Your task to perform on an android device: Search for good Thai restaurants Image 0: 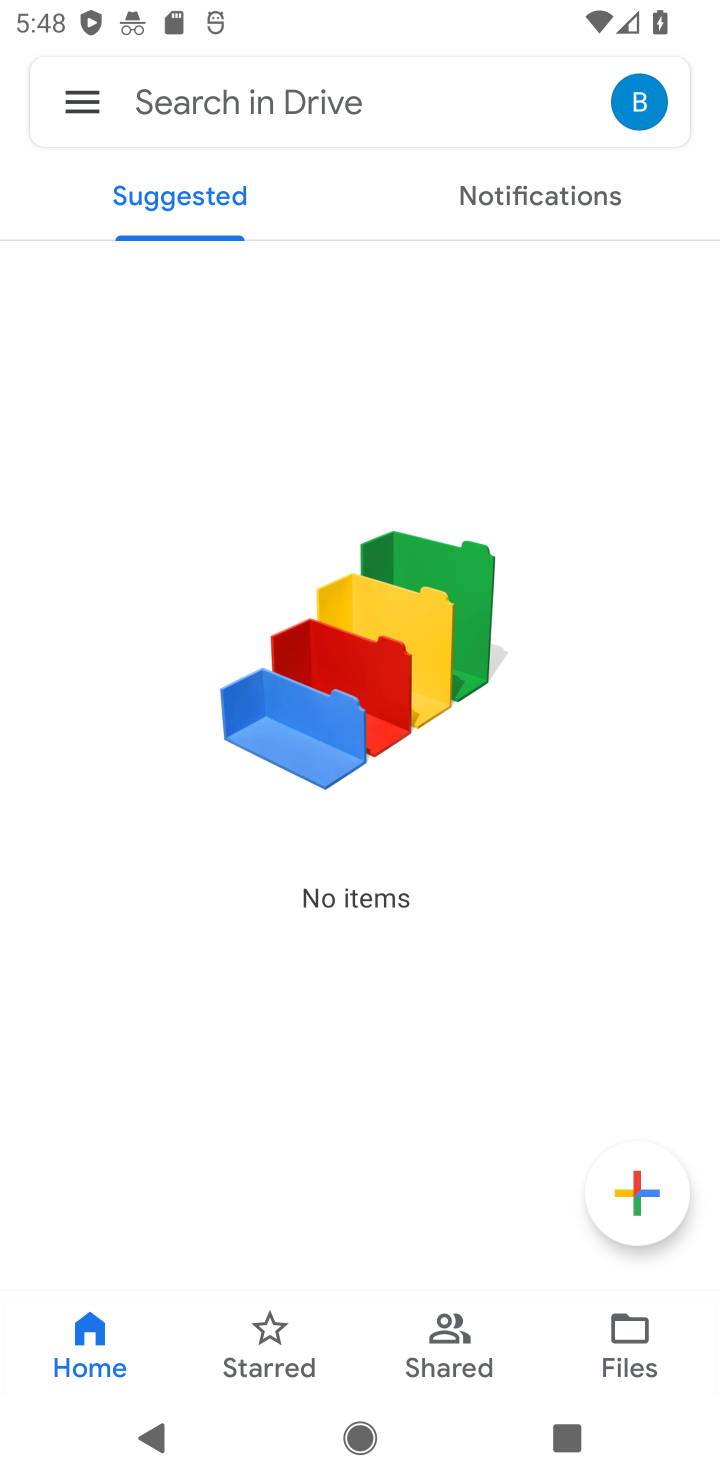
Step 0: press home button
Your task to perform on an android device: Search for good Thai restaurants Image 1: 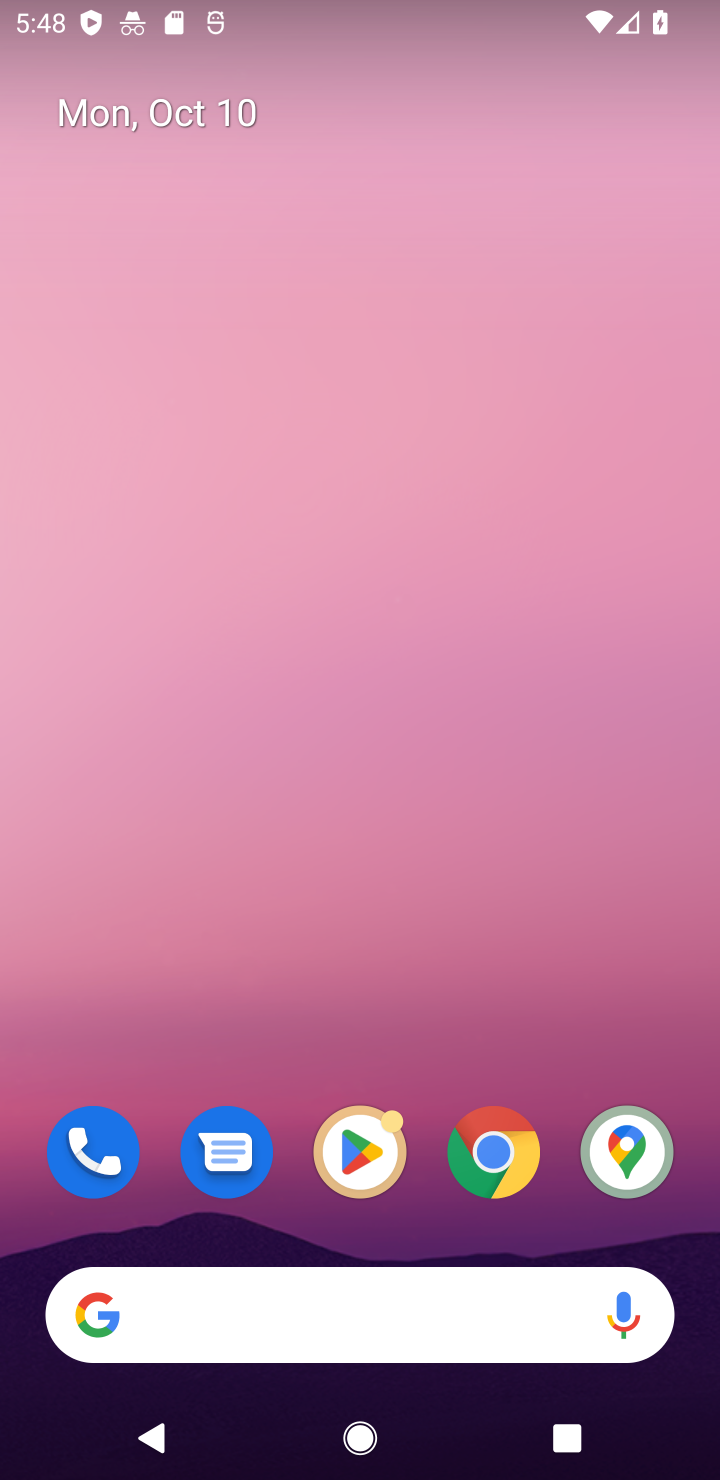
Step 1: click (624, 1151)
Your task to perform on an android device: Search for good Thai restaurants Image 2: 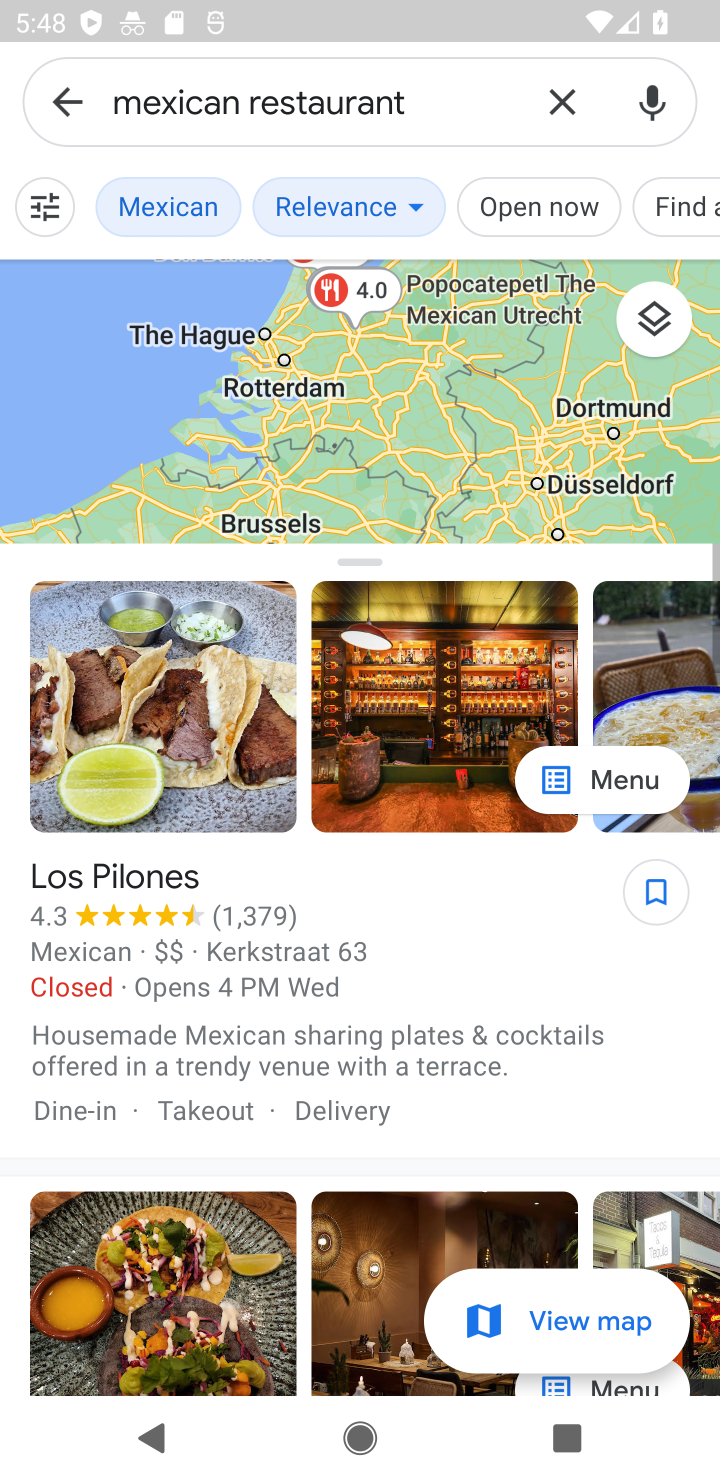
Step 2: click (577, 107)
Your task to perform on an android device: Search for good Thai restaurants Image 3: 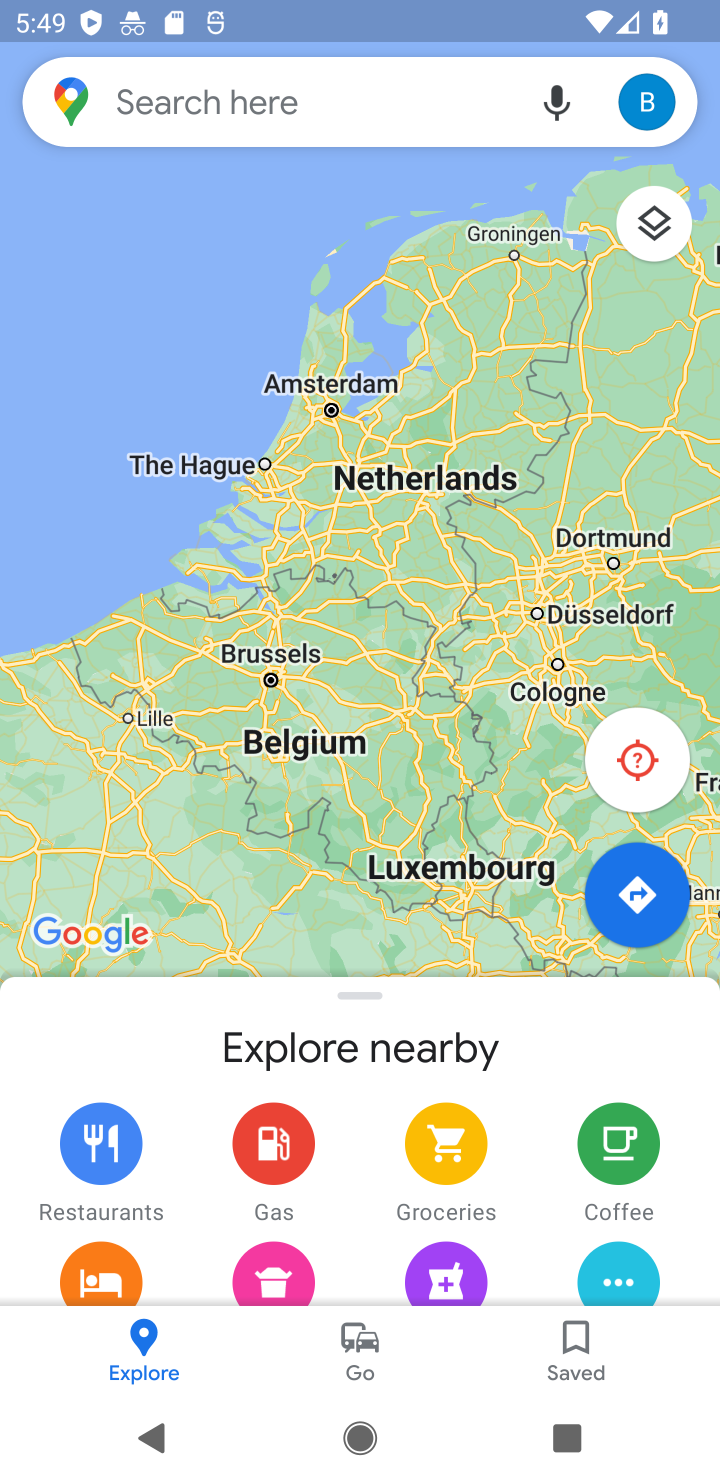
Step 3: click (394, 124)
Your task to perform on an android device: Search for good Thai restaurants Image 4: 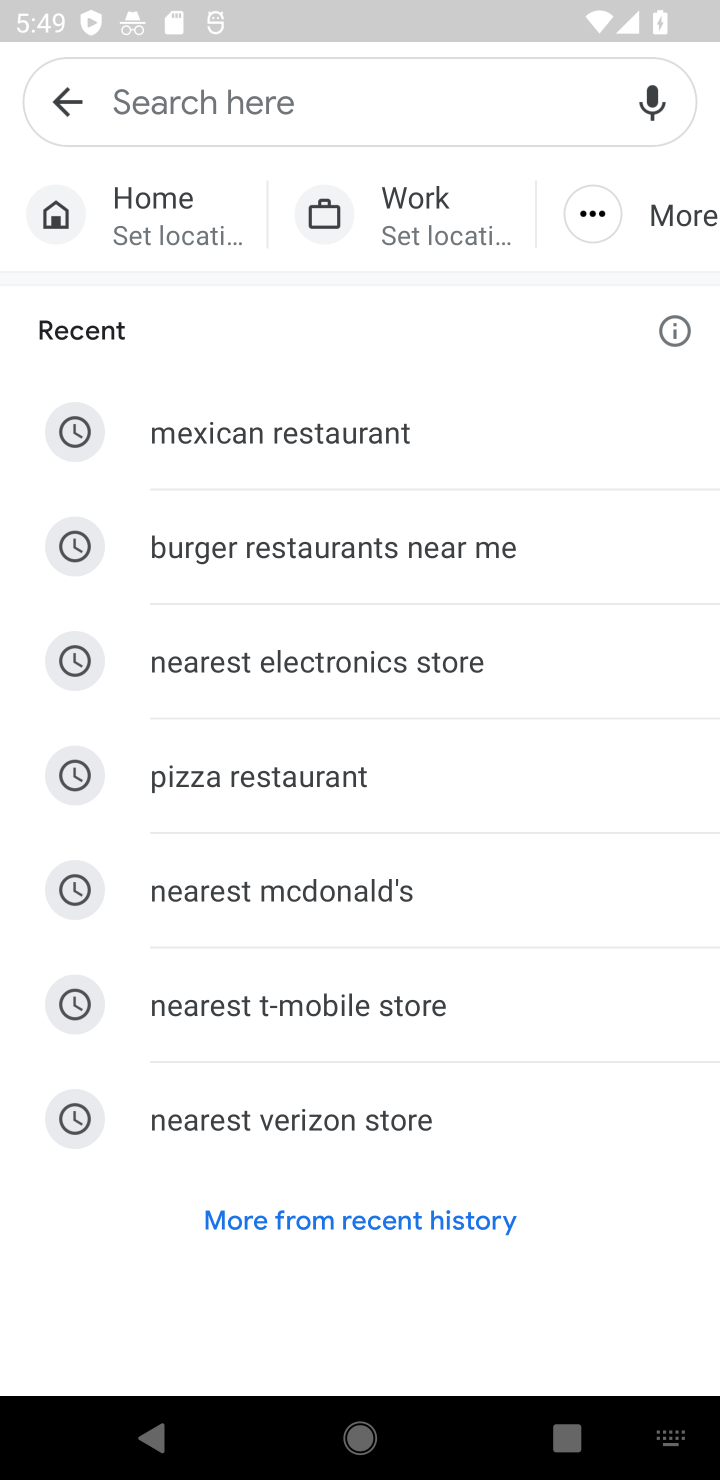
Step 4: type "Thai restaurants"
Your task to perform on an android device: Search for good Thai restaurants Image 5: 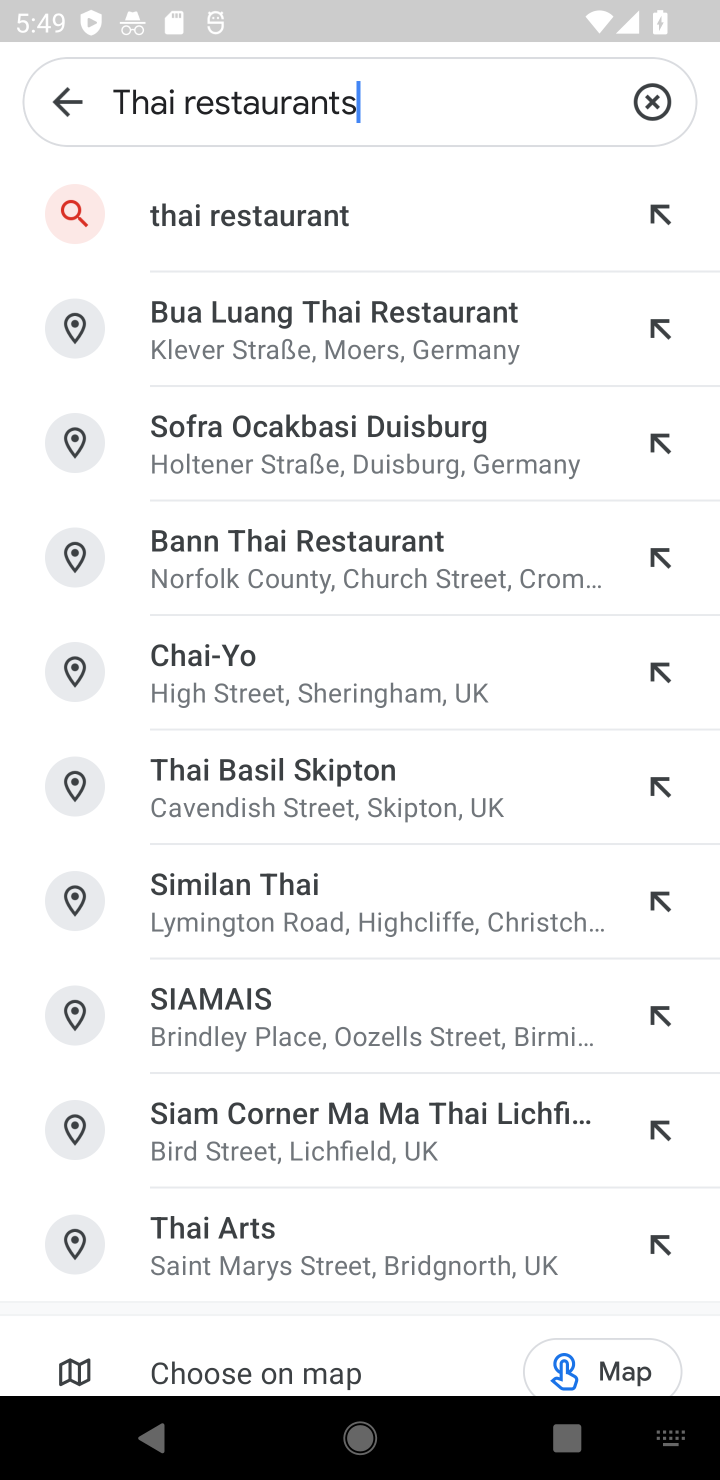
Step 5: click (314, 214)
Your task to perform on an android device: Search for good Thai restaurants Image 6: 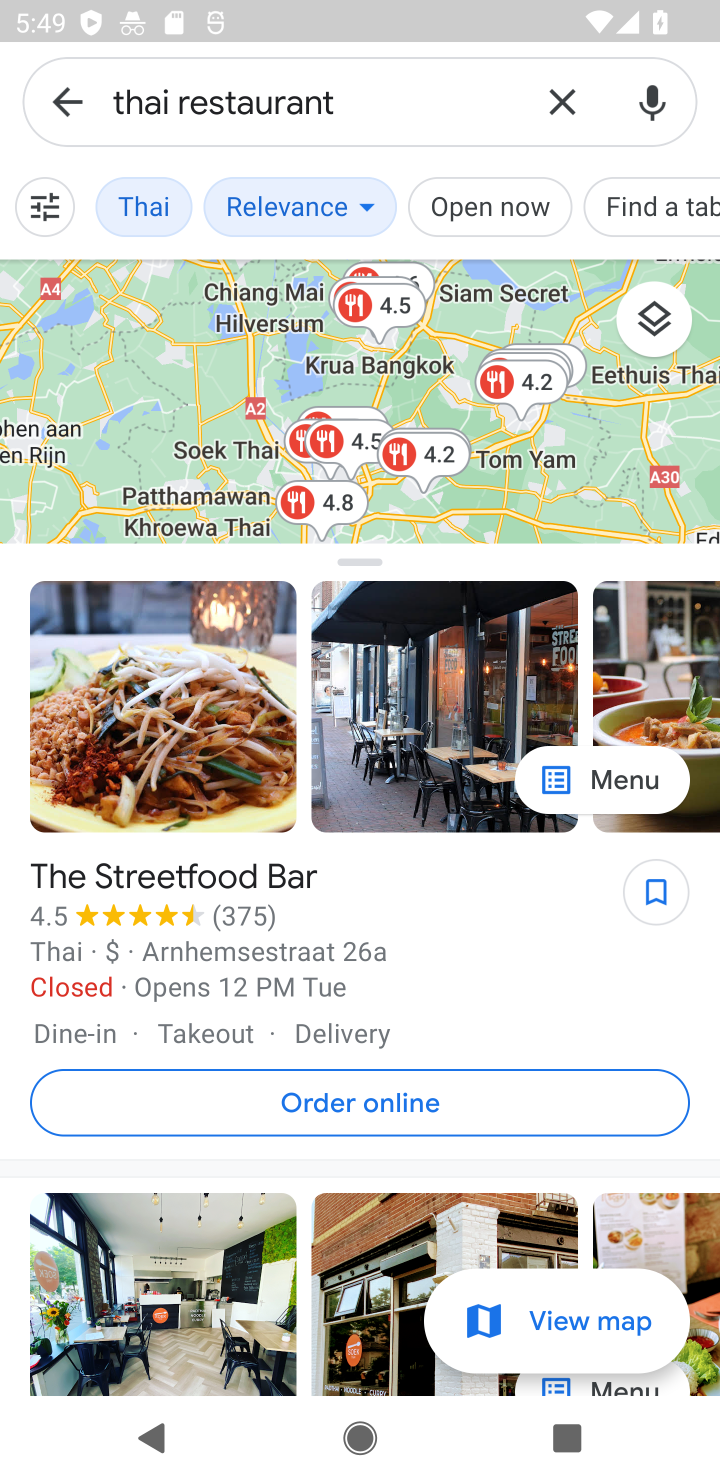
Step 6: drag from (595, 223) to (297, 174)
Your task to perform on an android device: Search for good Thai restaurants Image 7: 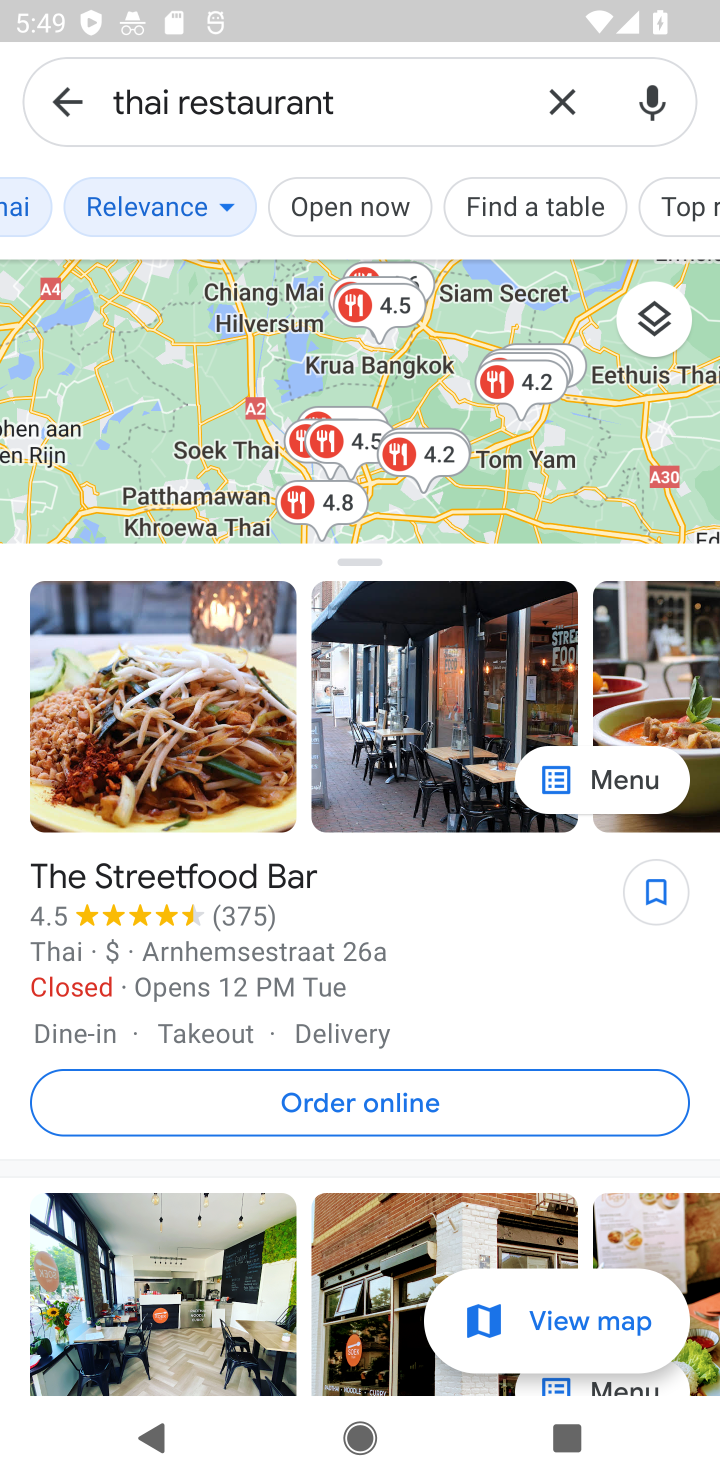
Step 7: click (698, 204)
Your task to perform on an android device: Search for good Thai restaurants Image 8: 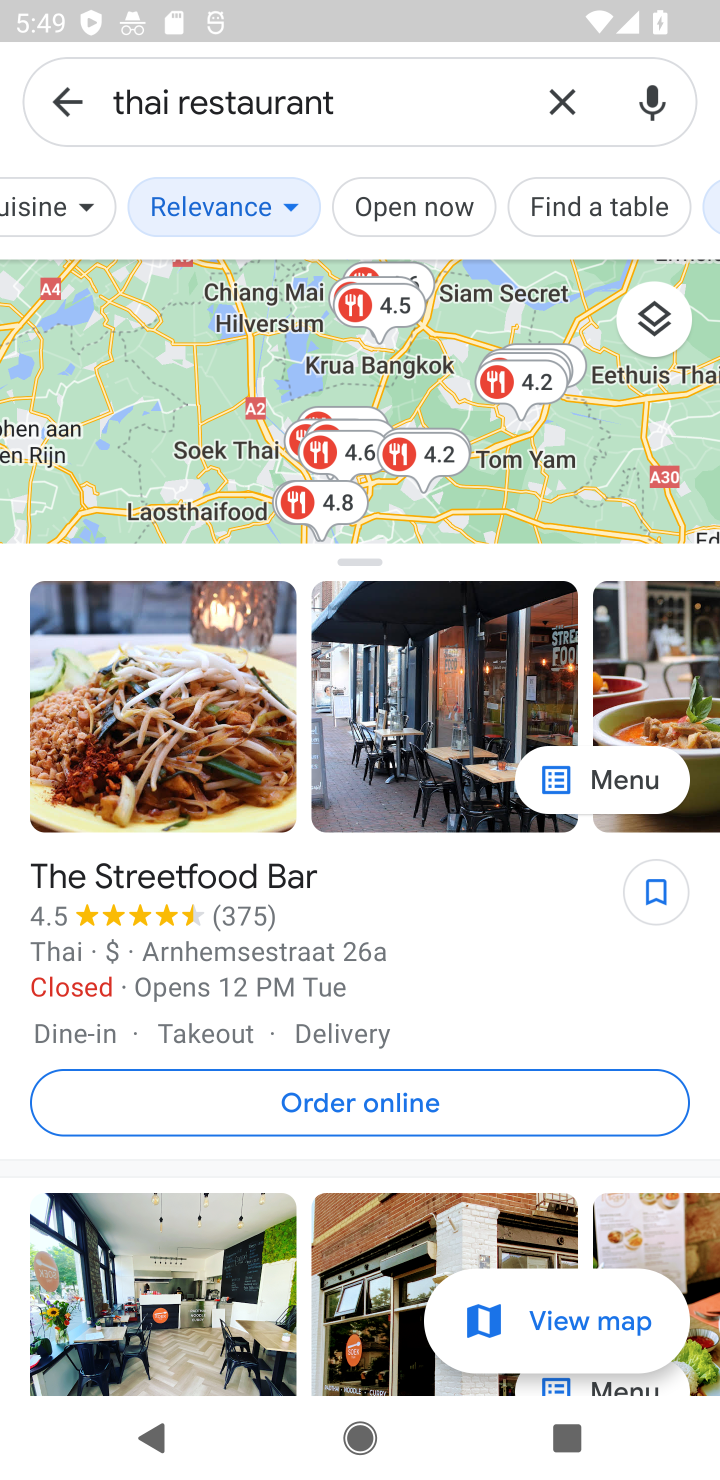
Step 8: task complete